Your task to perform on an android device: Open privacy settings Image 0: 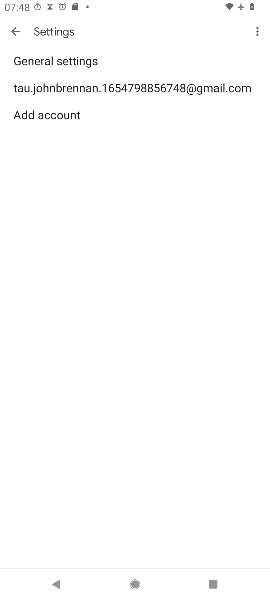
Step 0: press home button
Your task to perform on an android device: Open privacy settings Image 1: 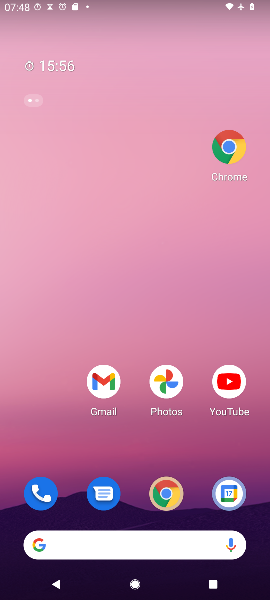
Step 1: drag from (47, 441) to (32, 93)
Your task to perform on an android device: Open privacy settings Image 2: 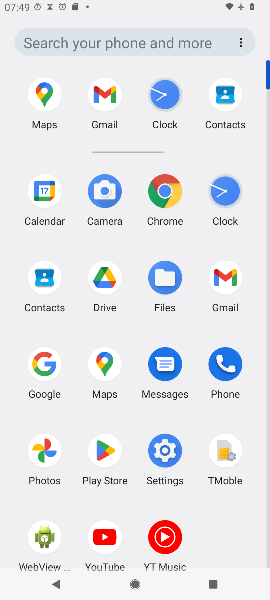
Step 2: click (155, 444)
Your task to perform on an android device: Open privacy settings Image 3: 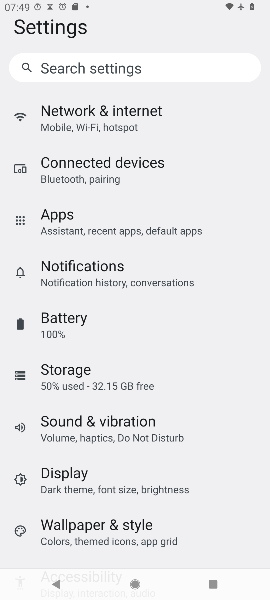
Step 3: drag from (117, 457) to (131, 243)
Your task to perform on an android device: Open privacy settings Image 4: 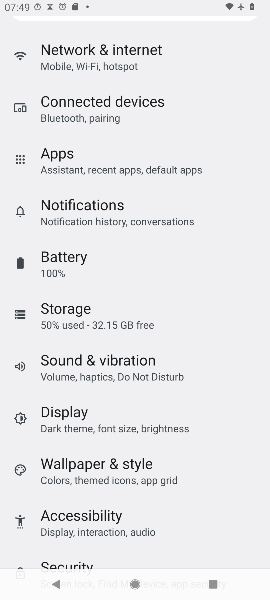
Step 4: drag from (67, 500) to (88, 274)
Your task to perform on an android device: Open privacy settings Image 5: 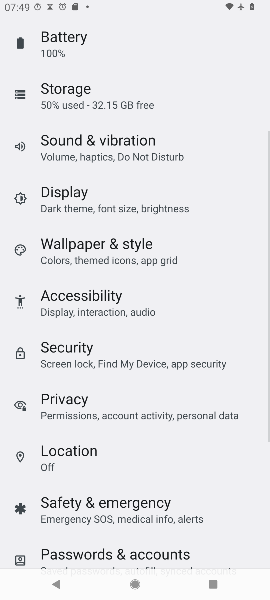
Step 5: click (82, 414)
Your task to perform on an android device: Open privacy settings Image 6: 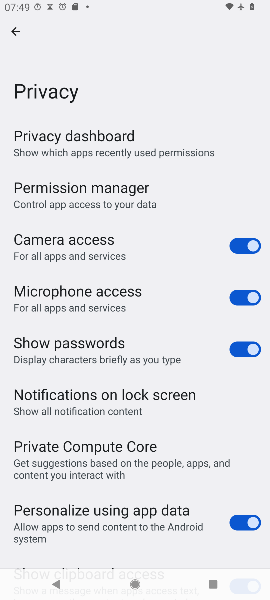
Step 6: task complete